Your task to perform on an android device: change text size in settings app Image 0: 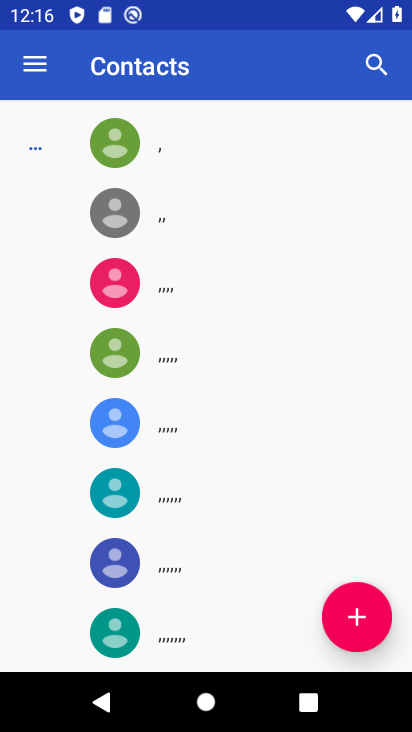
Step 0: press home button
Your task to perform on an android device: change text size in settings app Image 1: 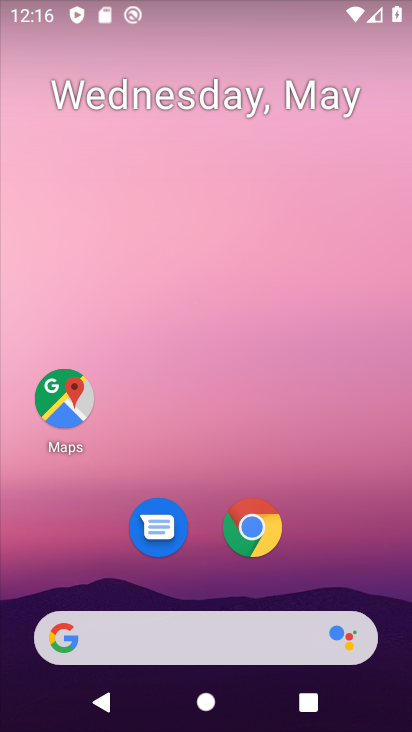
Step 1: drag from (324, 460) to (220, 26)
Your task to perform on an android device: change text size in settings app Image 2: 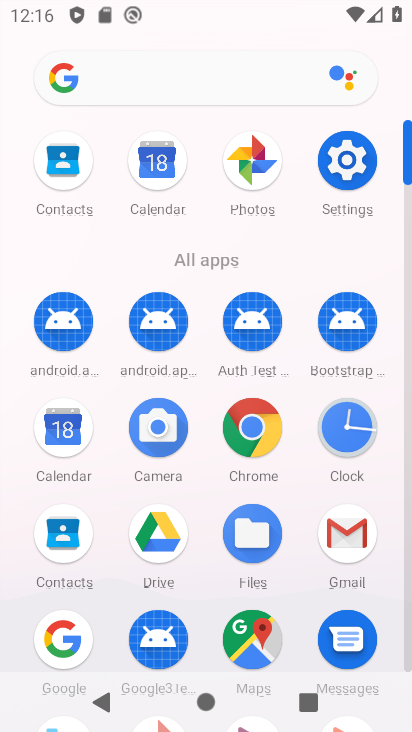
Step 2: click (338, 161)
Your task to perform on an android device: change text size in settings app Image 3: 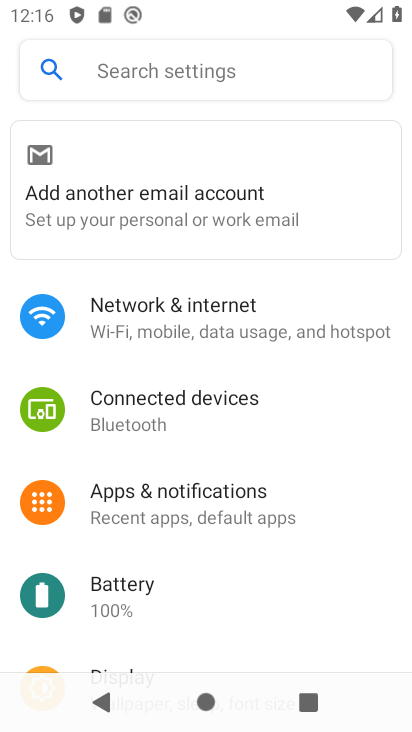
Step 3: click (164, 665)
Your task to perform on an android device: change text size in settings app Image 4: 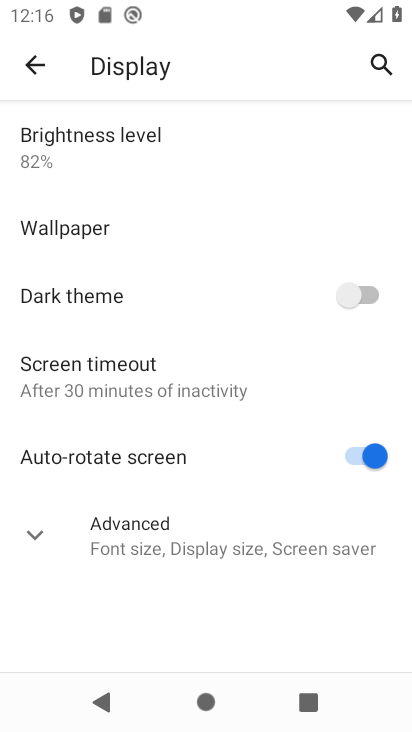
Step 4: click (96, 521)
Your task to perform on an android device: change text size in settings app Image 5: 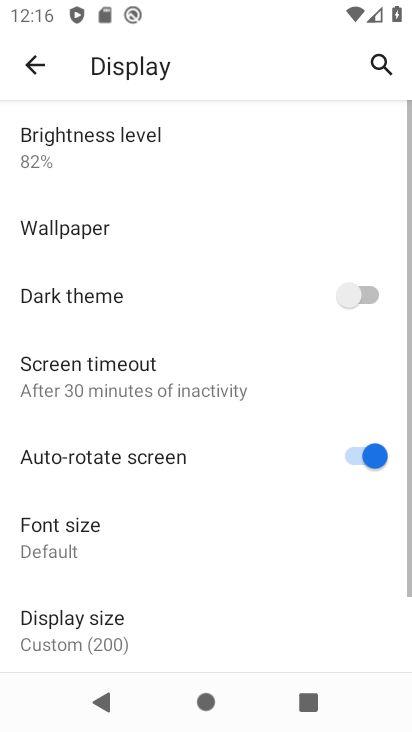
Step 5: click (75, 552)
Your task to perform on an android device: change text size in settings app Image 6: 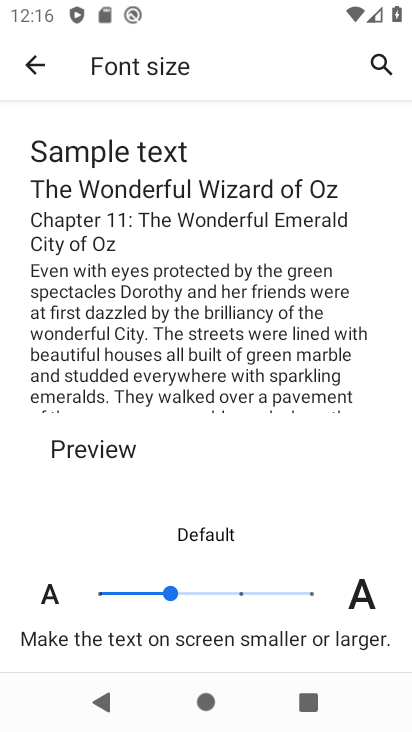
Step 6: click (97, 592)
Your task to perform on an android device: change text size in settings app Image 7: 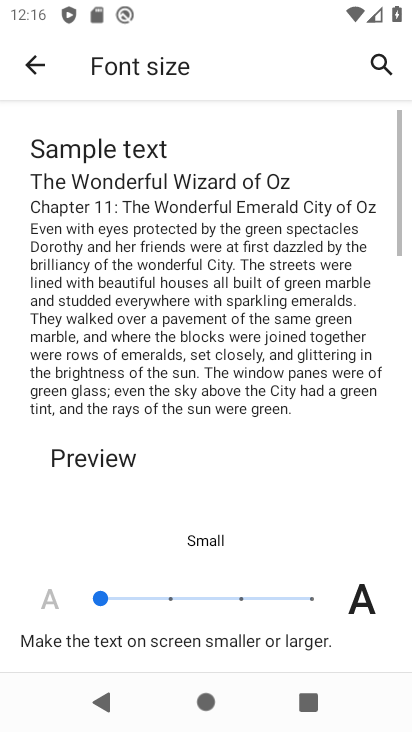
Step 7: task complete